Your task to perform on an android device: set an alarm Image 0: 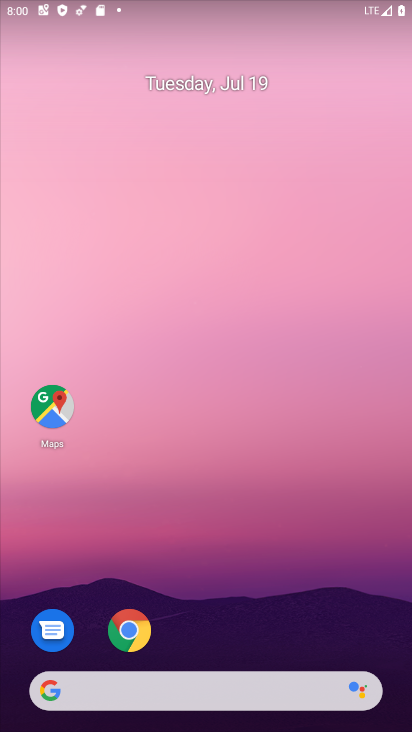
Step 0: click (291, 35)
Your task to perform on an android device: set an alarm Image 1: 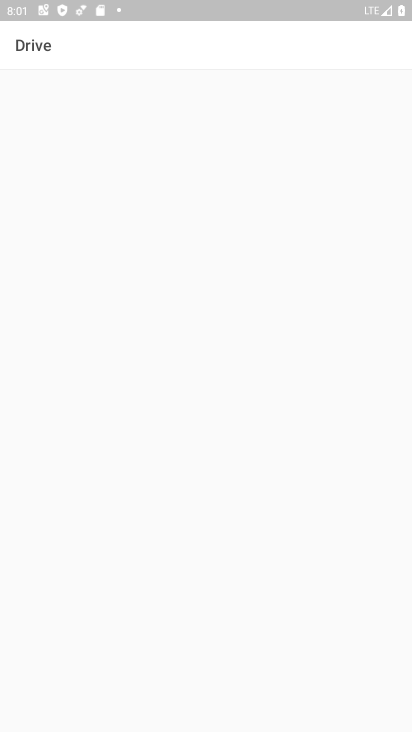
Step 1: press home button
Your task to perform on an android device: set an alarm Image 2: 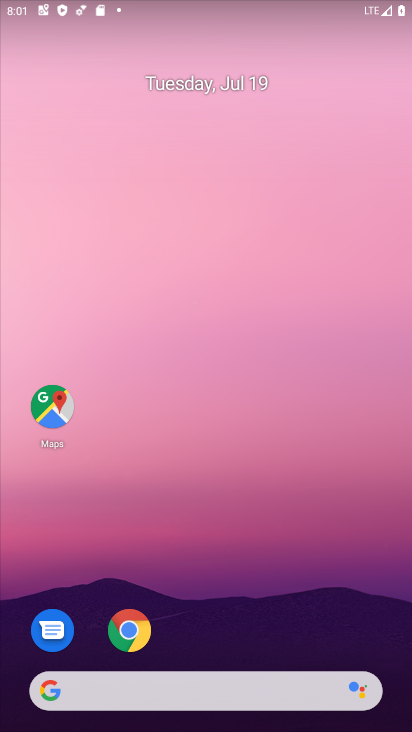
Step 2: drag from (264, 623) to (235, 52)
Your task to perform on an android device: set an alarm Image 3: 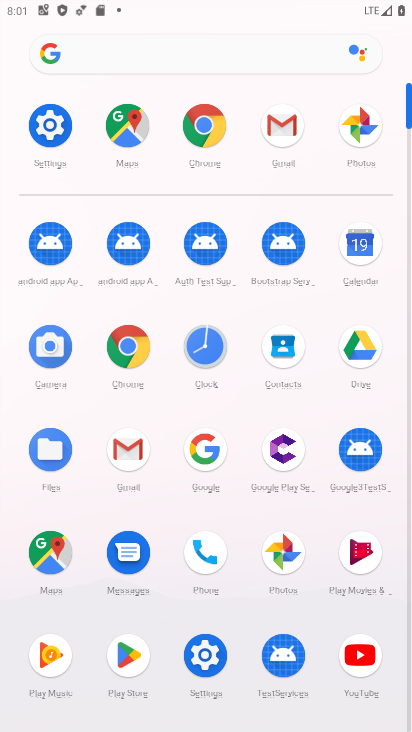
Step 3: click (214, 332)
Your task to perform on an android device: set an alarm Image 4: 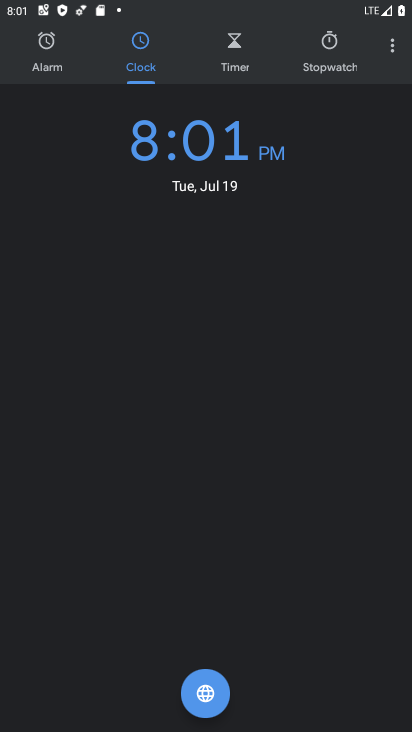
Step 4: click (42, 59)
Your task to perform on an android device: set an alarm Image 5: 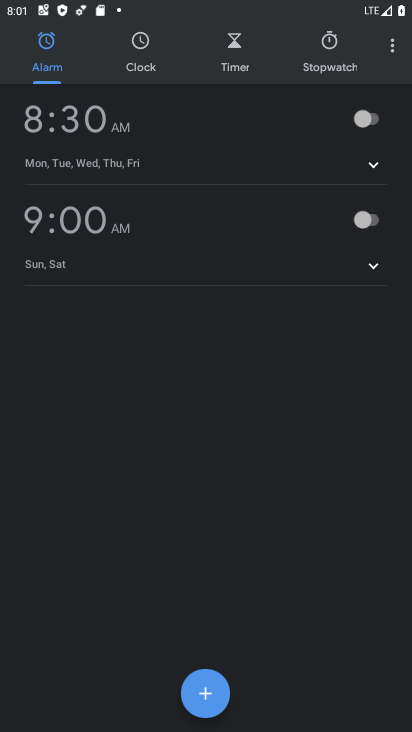
Step 5: click (211, 698)
Your task to perform on an android device: set an alarm Image 6: 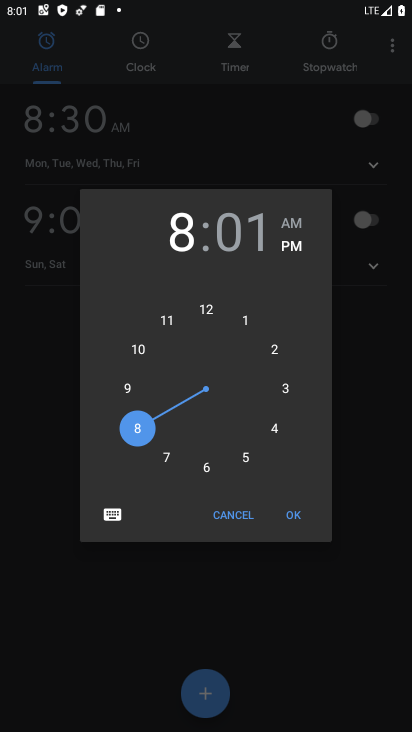
Step 6: click (287, 511)
Your task to perform on an android device: set an alarm Image 7: 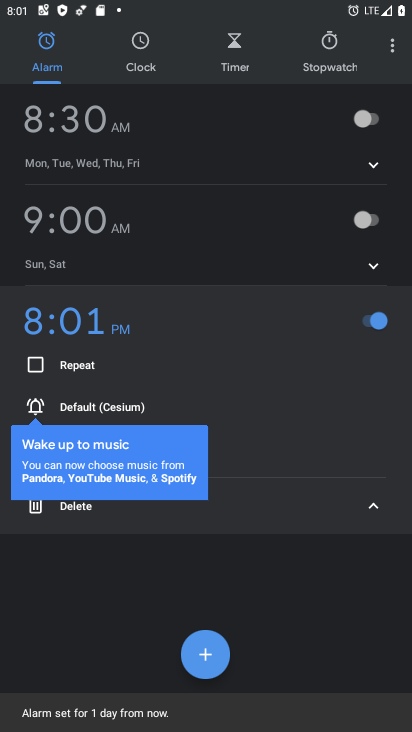
Step 7: task complete